Your task to perform on an android device: turn on translation in the chrome app Image 0: 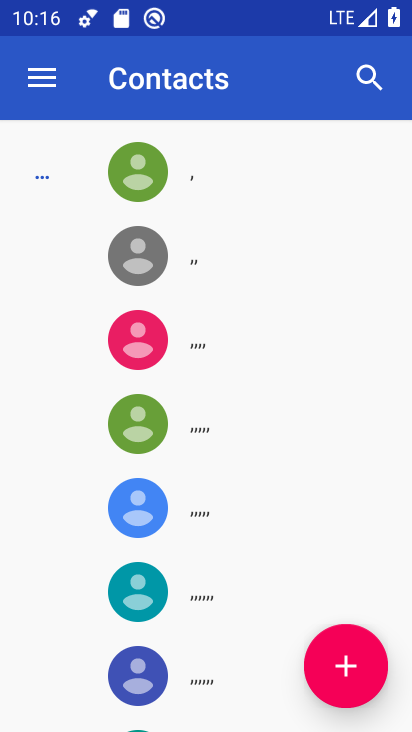
Step 0: press home button
Your task to perform on an android device: turn on translation in the chrome app Image 1: 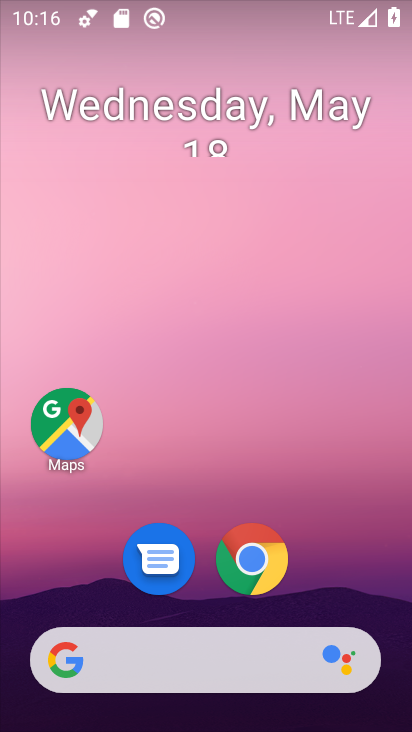
Step 1: click (245, 574)
Your task to perform on an android device: turn on translation in the chrome app Image 2: 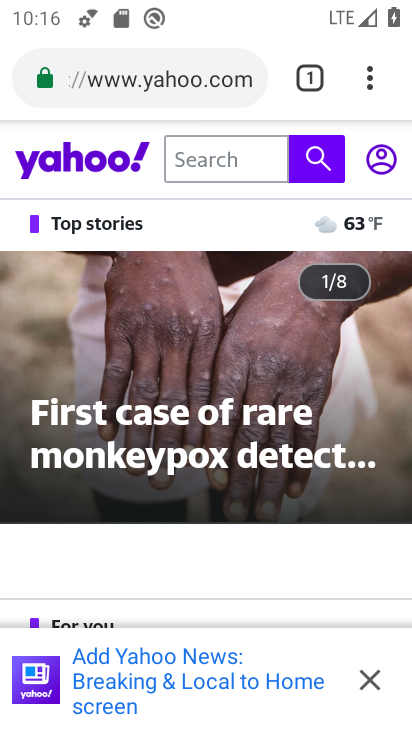
Step 2: click (367, 77)
Your task to perform on an android device: turn on translation in the chrome app Image 3: 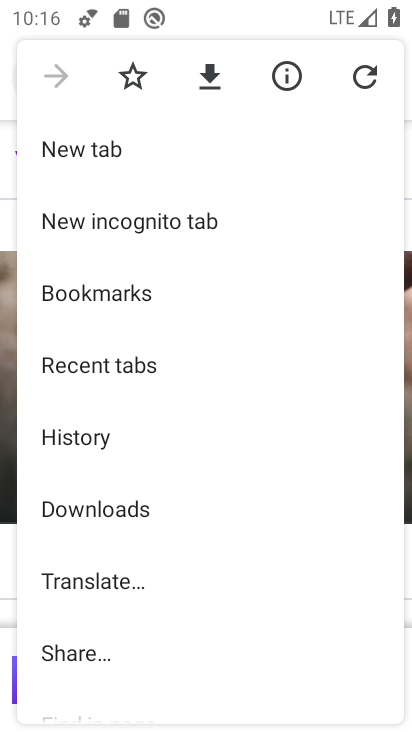
Step 3: drag from (133, 519) to (154, 385)
Your task to perform on an android device: turn on translation in the chrome app Image 4: 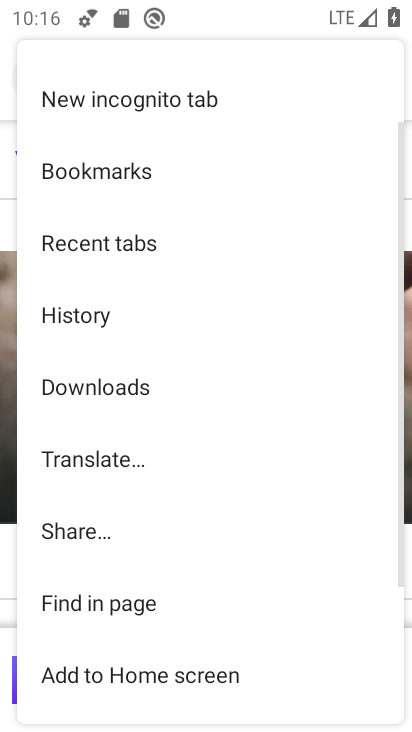
Step 4: drag from (133, 580) to (167, 201)
Your task to perform on an android device: turn on translation in the chrome app Image 5: 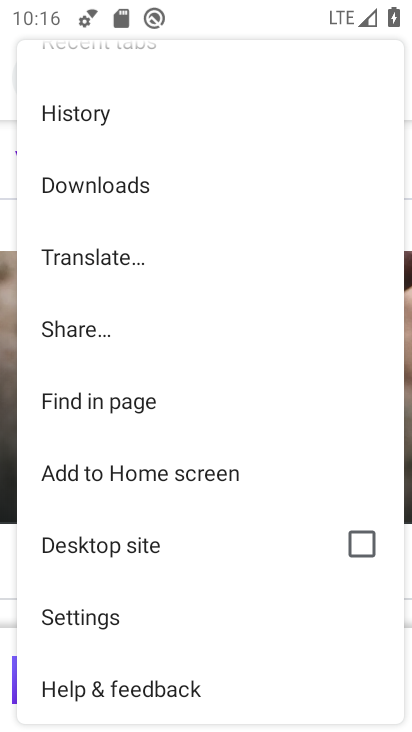
Step 5: click (76, 623)
Your task to perform on an android device: turn on translation in the chrome app Image 6: 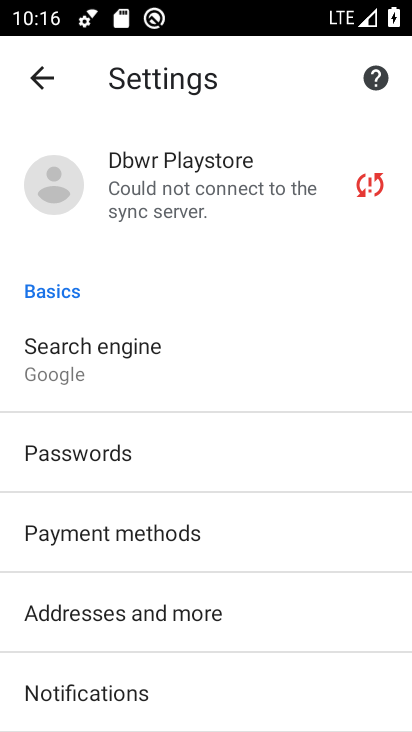
Step 6: drag from (115, 593) to (171, 344)
Your task to perform on an android device: turn on translation in the chrome app Image 7: 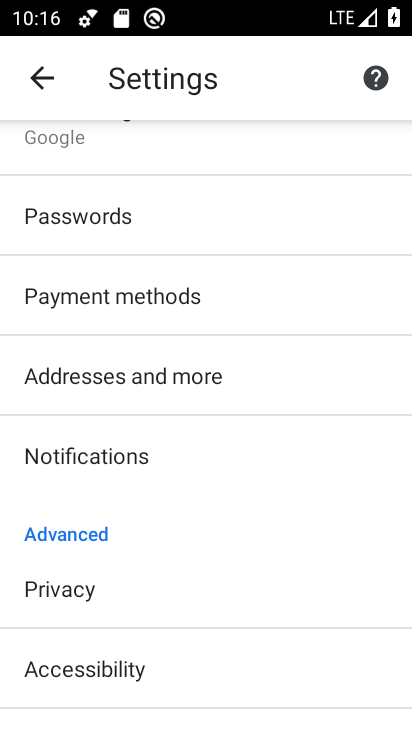
Step 7: drag from (123, 638) to (180, 281)
Your task to perform on an android device: turn on translation in the chrome app Image 8: 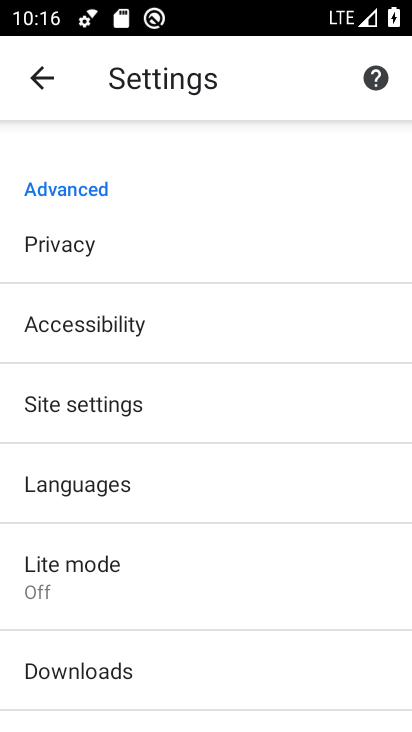
Step 8: click (114, 496)
Your task to perform on an android device: turn on translation in the chrome app Image 9: 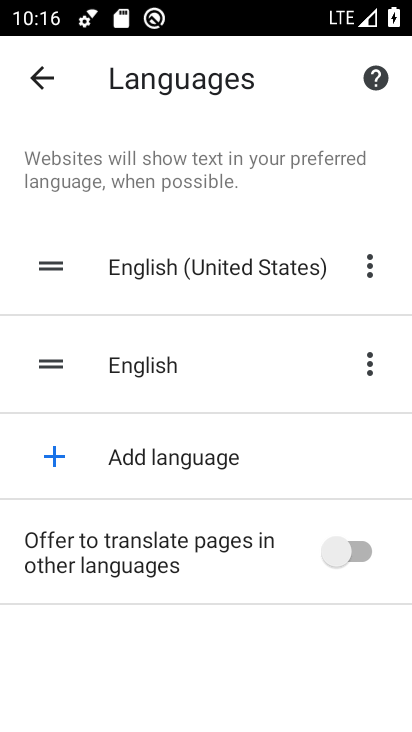
Step 9: click (370, 542)
Your task to perform on an android device: turn on translation in the chrome app Image 10: 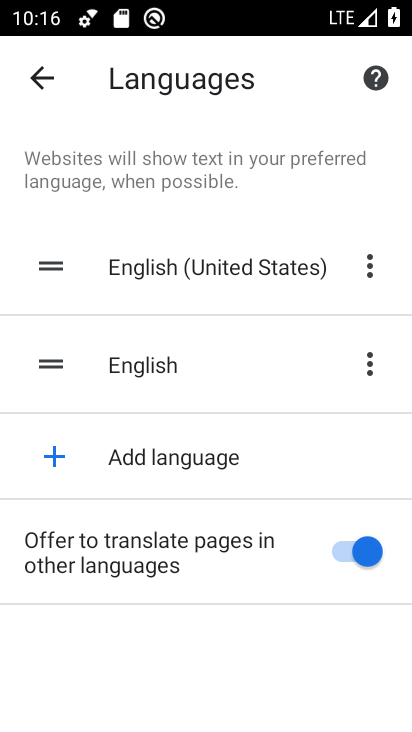
Step 10: task complete